Your task to perform on an android device: toggle wifi Image 0: 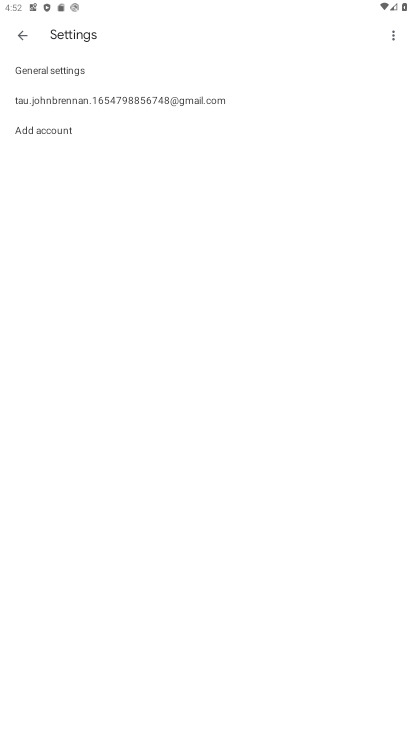
Step 0: press home button
Your task to perform on an android device: toggle wifi Image 1: 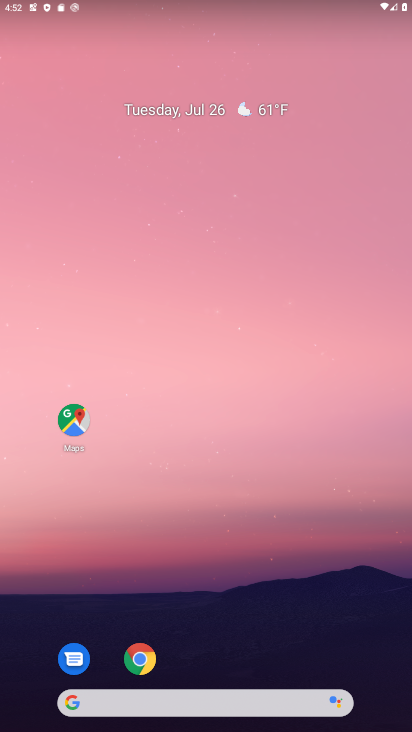
Step 1: task complete